Your task to perform on an android device: Open the calendar and show me this week's events? Image 0: 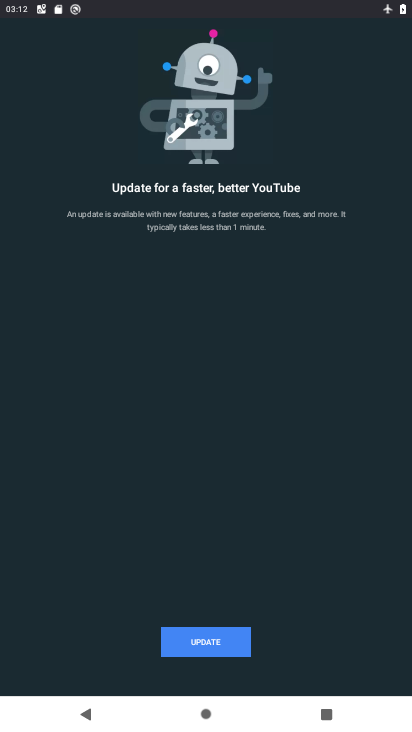
Step 0: press home button
Your task to perform on an android device: Open the calendar and show me this week's events? Image 1: 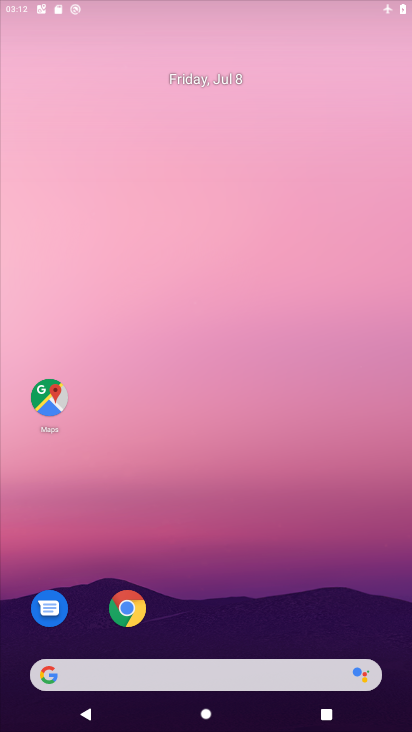
Step 1: drag from (197, 594) to (203, 278)
Your task to perform on an android device: Open the calendar and show me this week's events? Image 2: 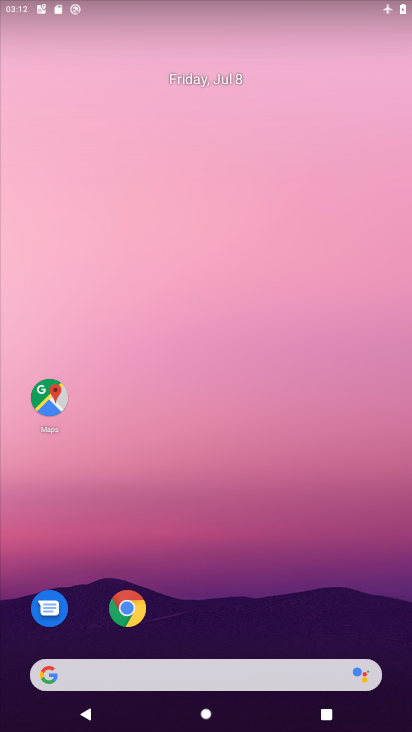
Step 2: drag from (219, 647) to (216, 247)
Your task to perform on an android device: Open the calendar and show me this week's events? Image 3: 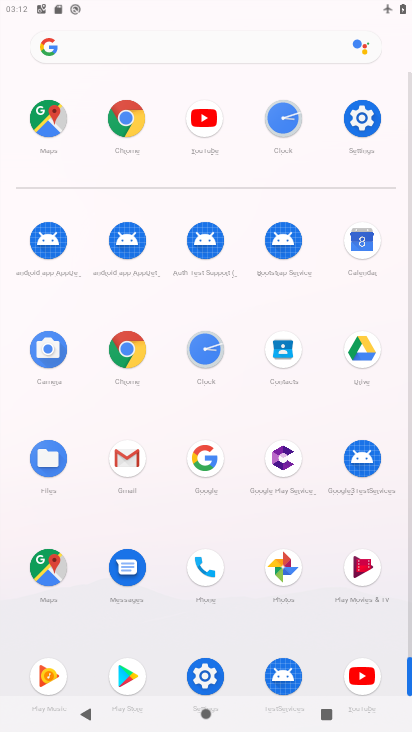
Step 3: click (347, 241)
Your task to perform on an android device: Open the calendar and show me this week's events? Image 4: 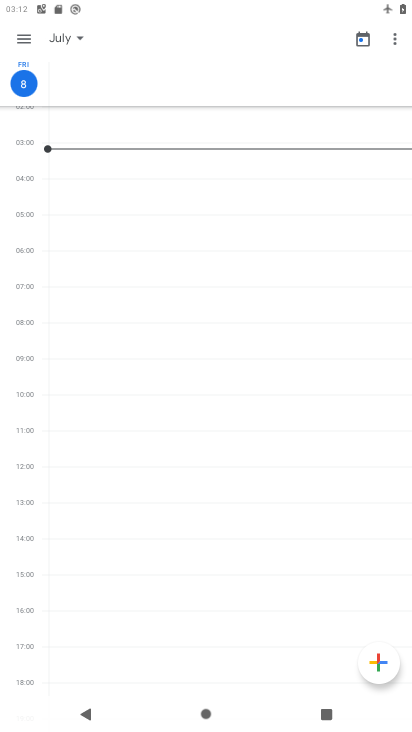
Step 4: click (17, 33)
Your task to perform on an android device: Open the calendar and show me this week's events? Image 5: 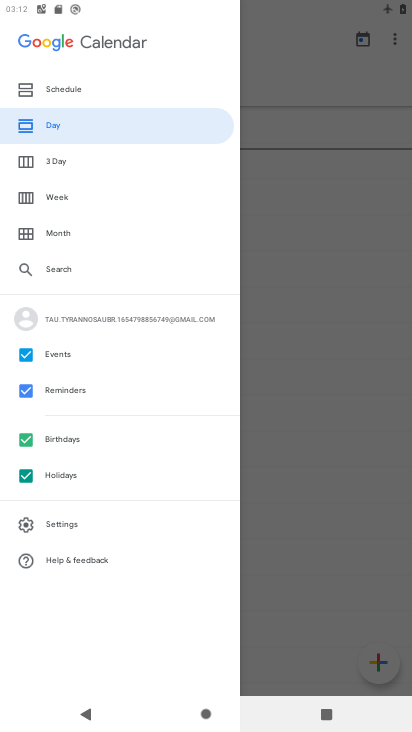
Step 5: click (82, 190)
Your task to perform on an android device: Open the calendar and show me this week's events? Image 6: 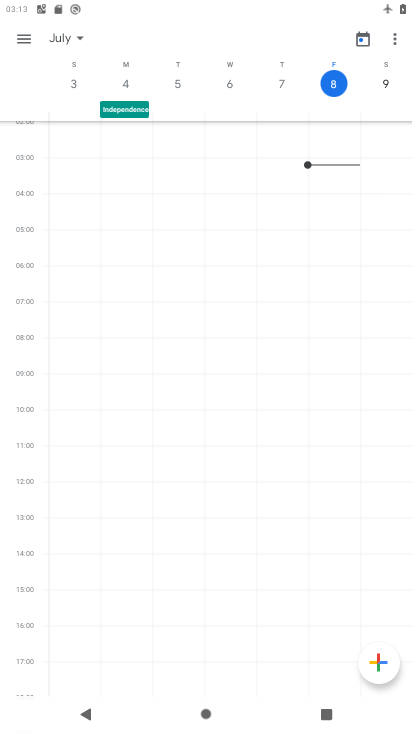
Step 6: task complete